Your task to perform on an android device: Open location settings Image 0: 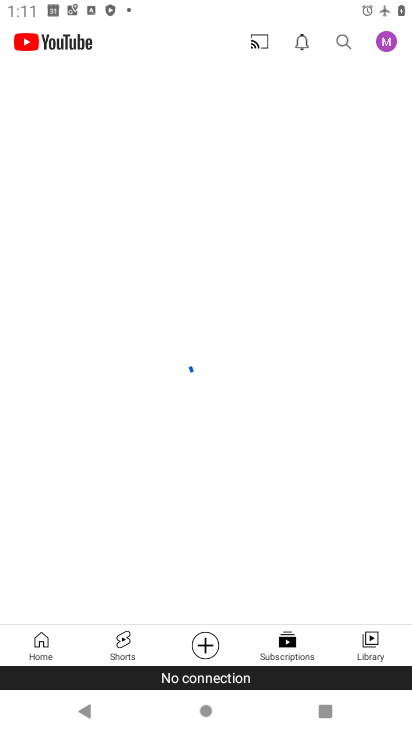
Step 0: press home button
Your task to perform on an android device: Open location settings Image 1: 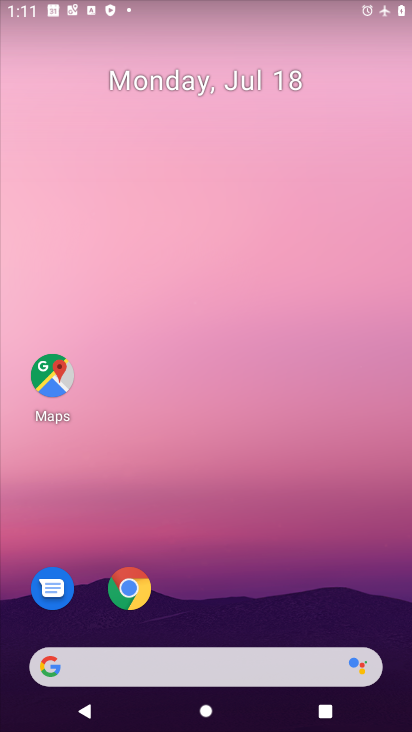
Step 1: drag from (278, 620) to (226, 265)
Your task to perform on an android device: Open location settings Image 2: 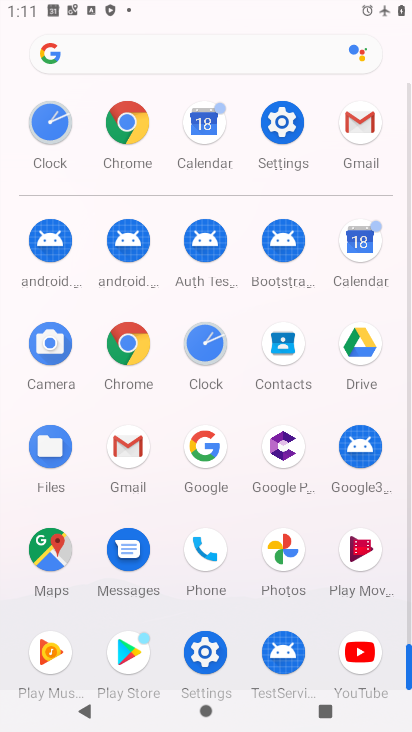
Step 2: click (294, 164)
Your task to perform on an android device: Open location settings Image 3: 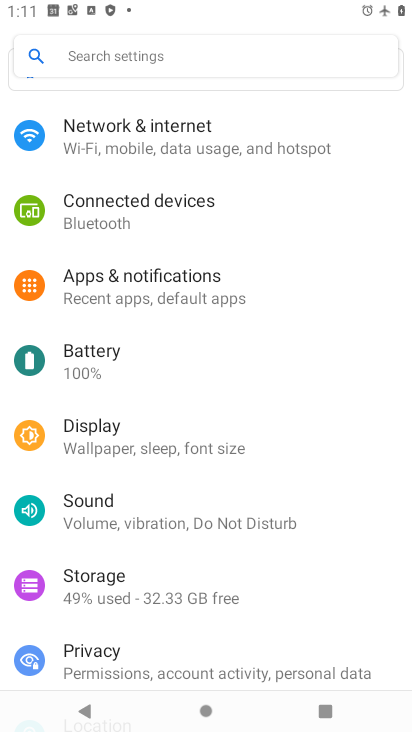
Step 3: drag from (105, 577) to (125, 310)
Your task to perform on an android device: Open location settings Image 4: 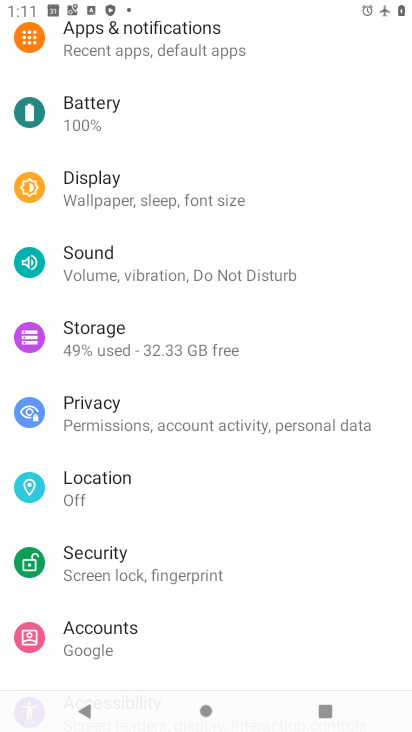
Step 4: click (152, 489)
Your task to perform on an android device: Open location settings Image 5: 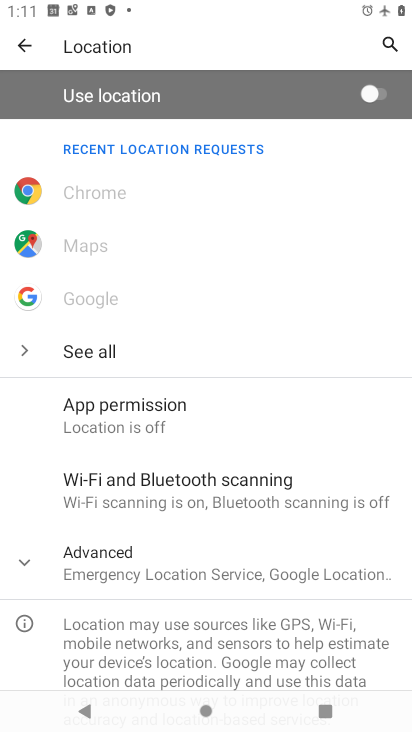
Step 5: task complete